Your task to perform on an android device: Open the web browser Image 0: 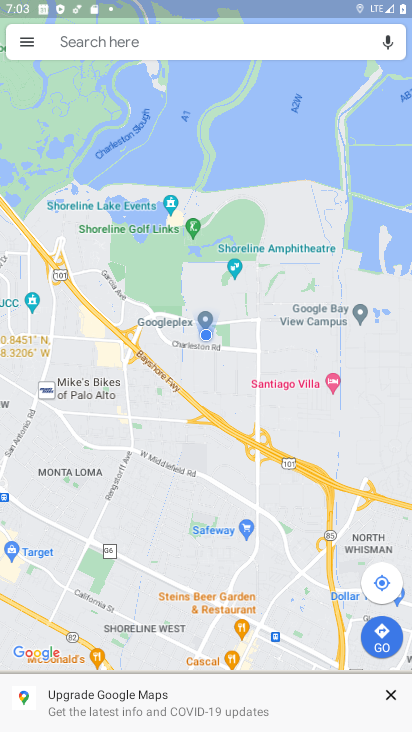
Step 0: press home button
Your task to perform on an android device: Open the web browser Image 1: 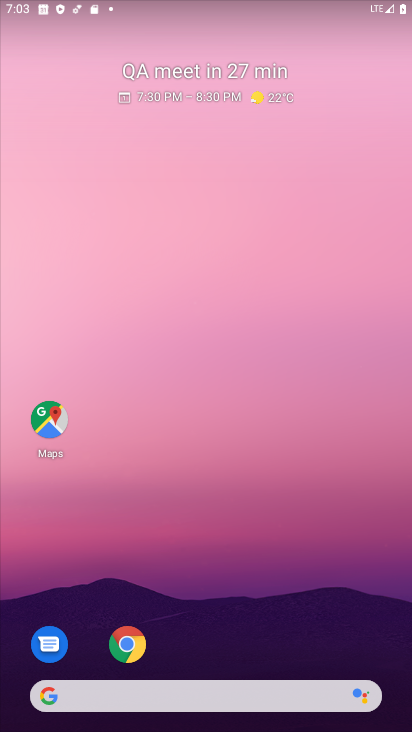
Step 1: drag from (297, 714) to (199, 214)
Your task to perform on an android device: Open the web browser Image 2: 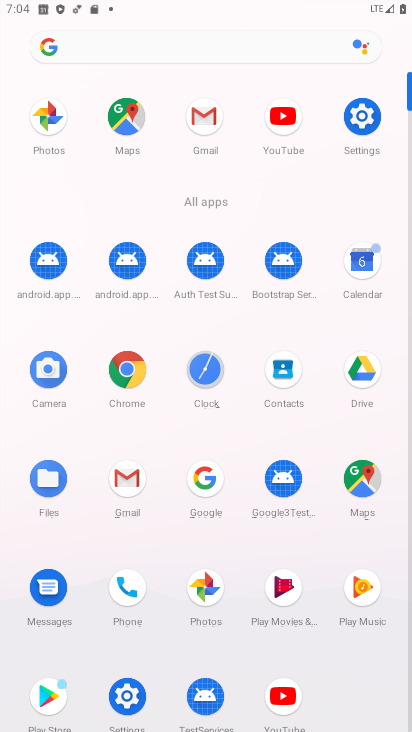
Step 2: click (125, 380)
Your task to perform on an android device: Open the web browser Image 3: 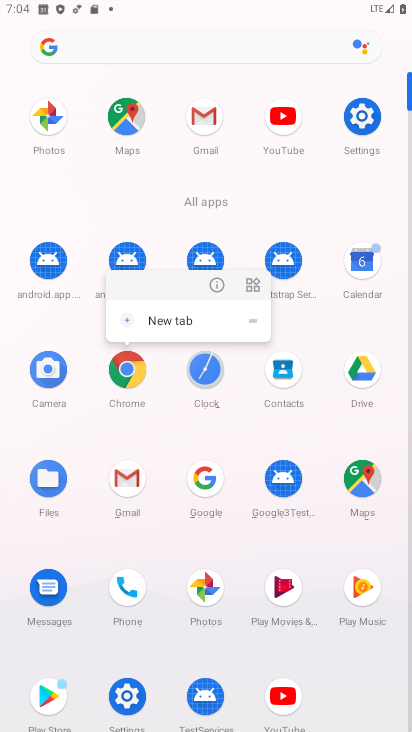
Step 3: click (133, 354)
Your task to perform on an android device: Open the web browser Image 4: 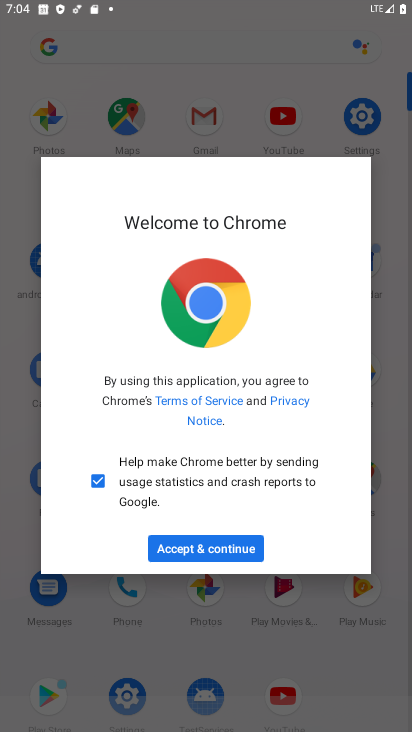
Step 4: click (222, 541)
Your task to perform on an android device: Open the web browser Image 5: 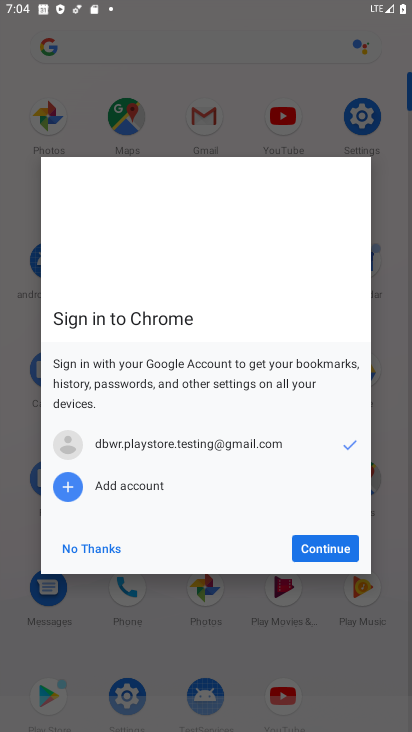
Step 5: click (303, 553)
Your task to perform on an android device: Open the web browser Image 6: 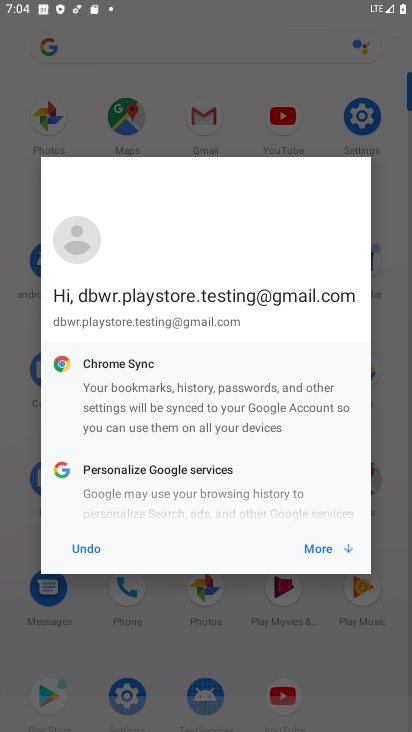
Step 6: click (328, 539)
Your task to perform on an android device: Open the web browser Image 7: 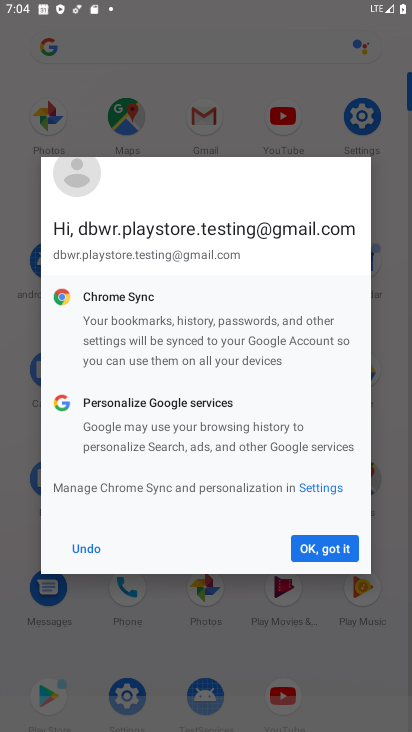
Step 7: click (330, 542)
Your task to perform on an android device: Open the web browser Image 8: 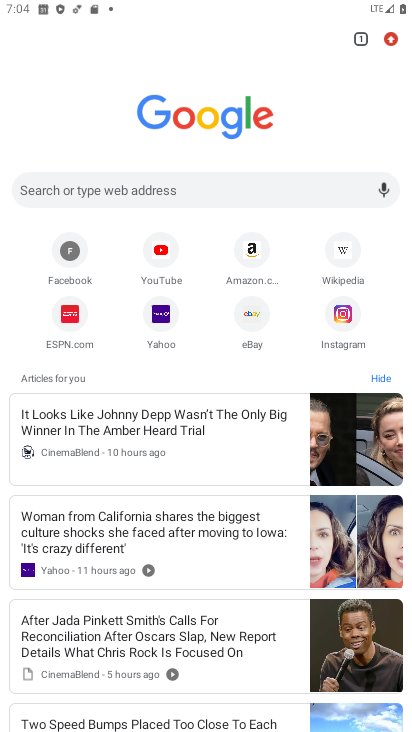
Step 8: click (177, 197)
Your task to perform on an android device: Open the web browser Image 9: 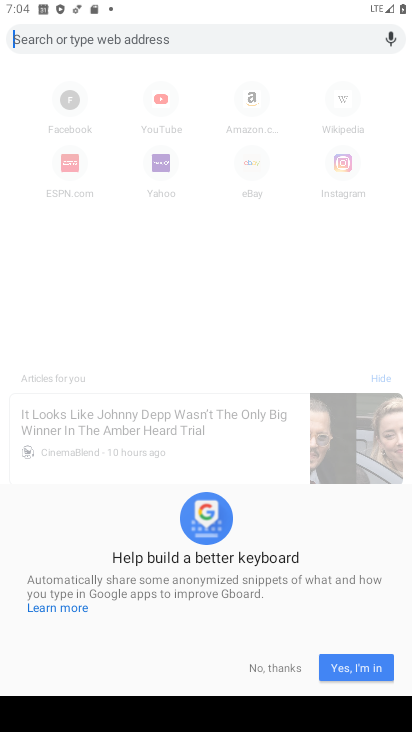
Step 9: click (256, 666)
Your task to perform on an android device: Open the web browser Image 10: 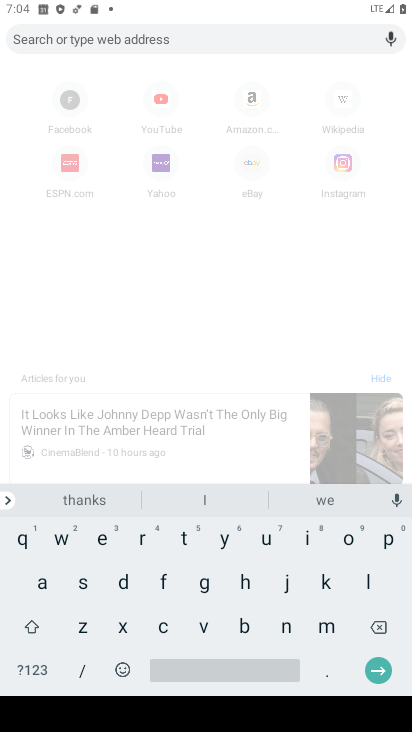
Step 10: task complete